Your task to perform on an android device: change the clock display to digital Image 0: 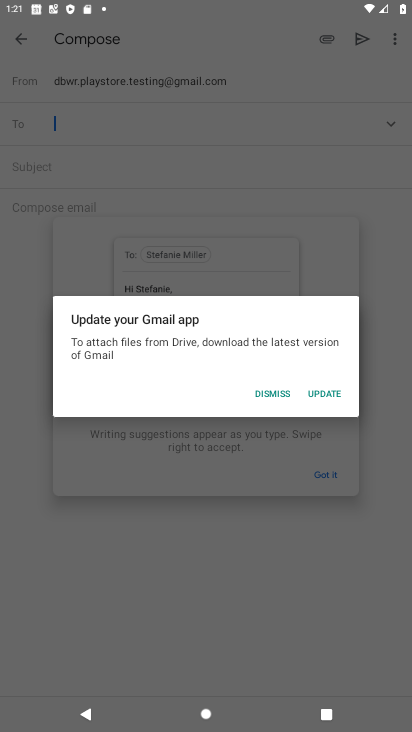
Step 0: press home button
Your task to perform on an android device: change the clock display to digital Image 1: 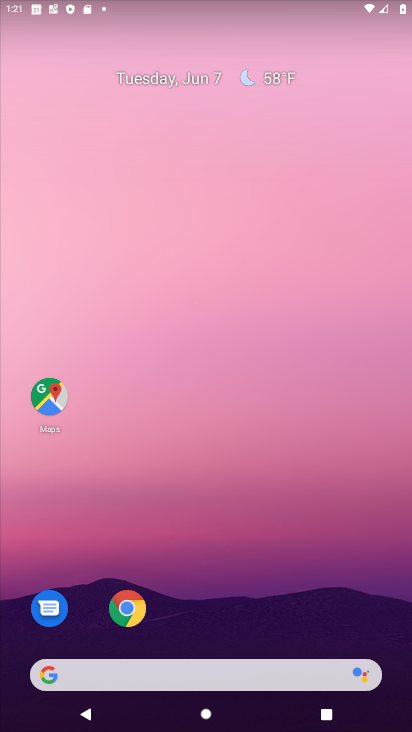
Step 1: drag from (259, 526) to (301, 12)
Your task to perform on an android device: change the clock display to digital Image 2: 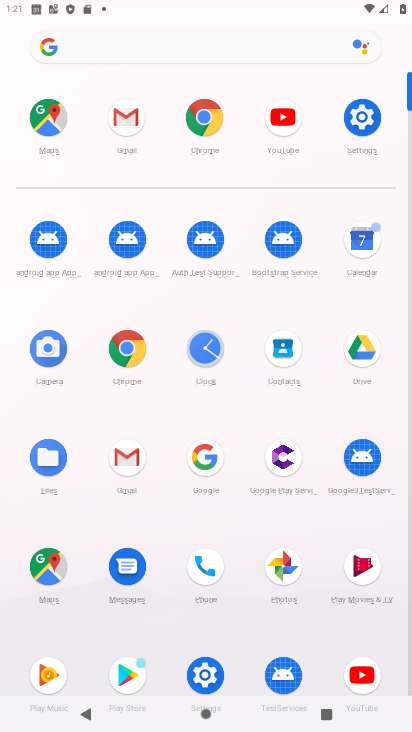
Step 2: click (212, 350)
Your task to perform on an android device: change the clock display to digital Image 3: 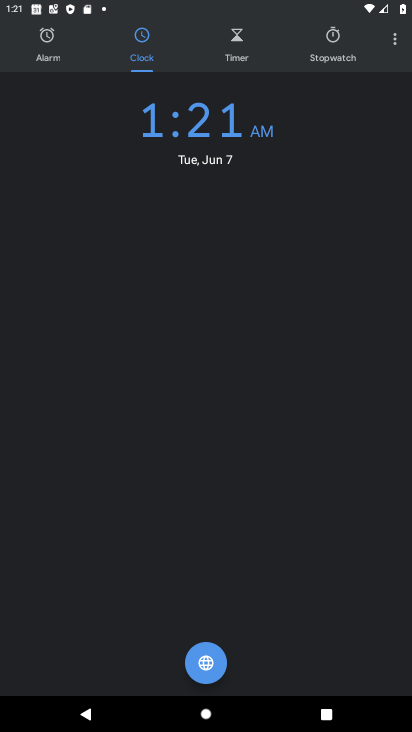
Step 3: click (399, 46)
Your task to perform on an android device: change the clock display to digital Image 4: 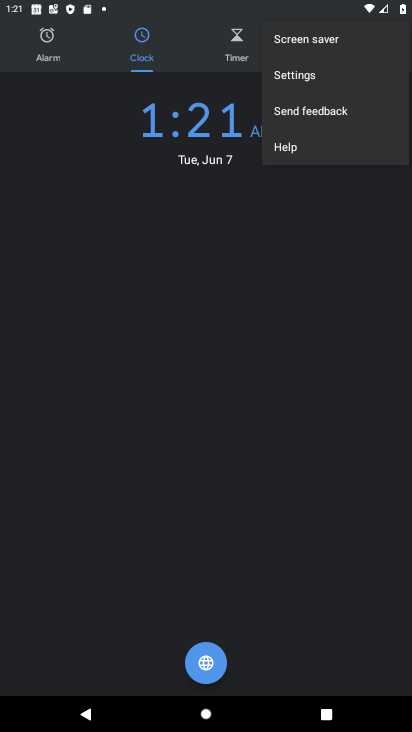
Step 4: click (329, 75)
Your task to perform on an android device: change the clock display to digital Image 5: 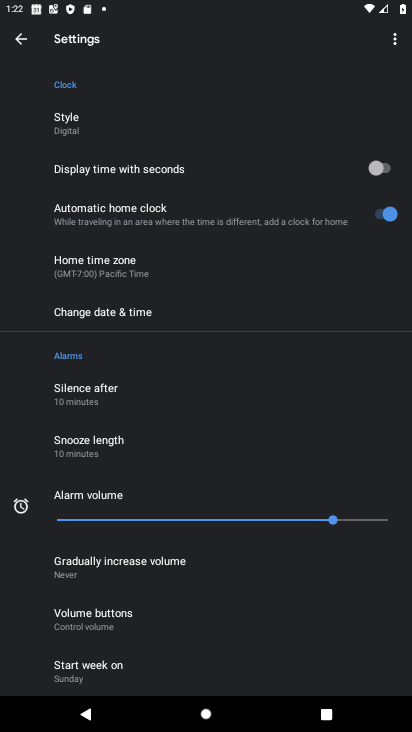
Step 5: task complete